Your task to perform on an android device: clear history in the chrome app Image 0: 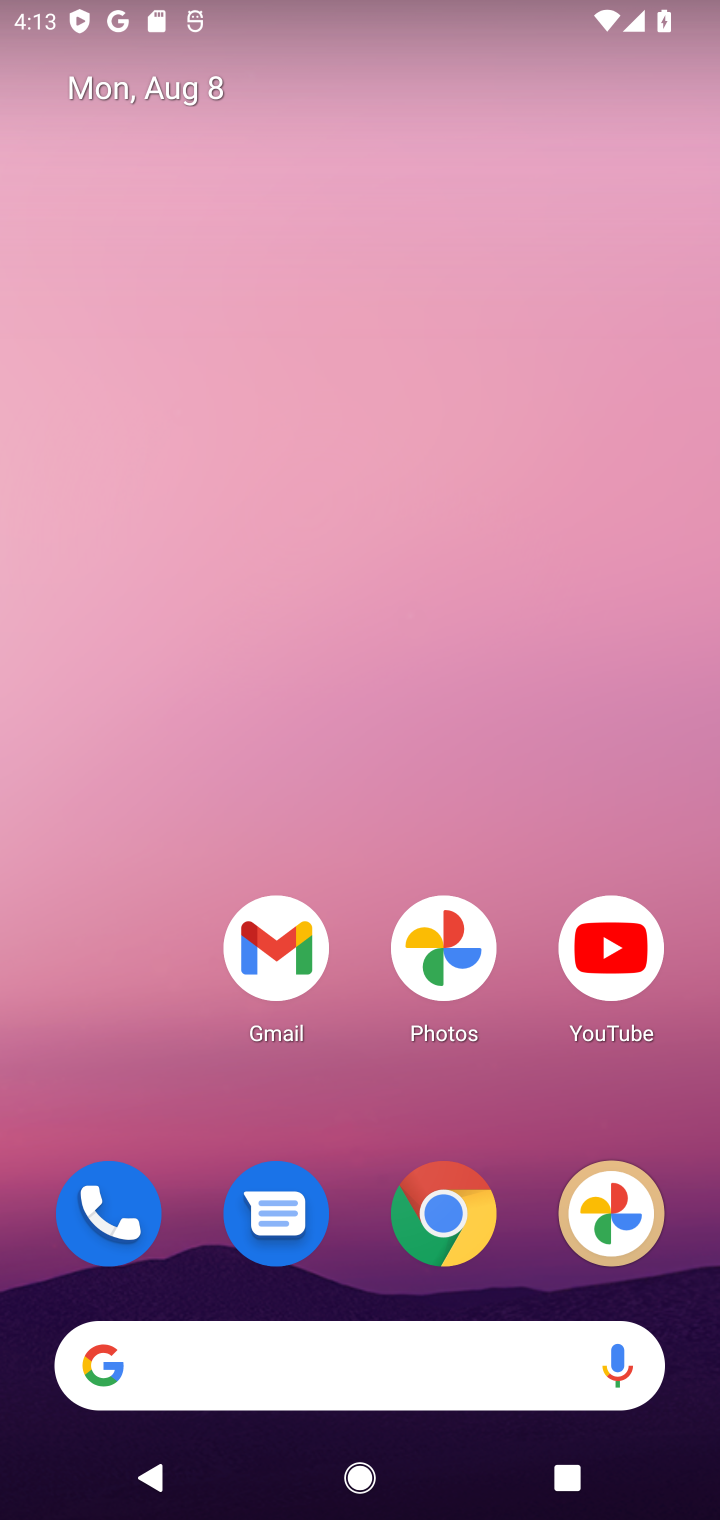
Step 0: click (447, 1193)
Your task to perform on an android device: clear history in the chrome app Image 1: 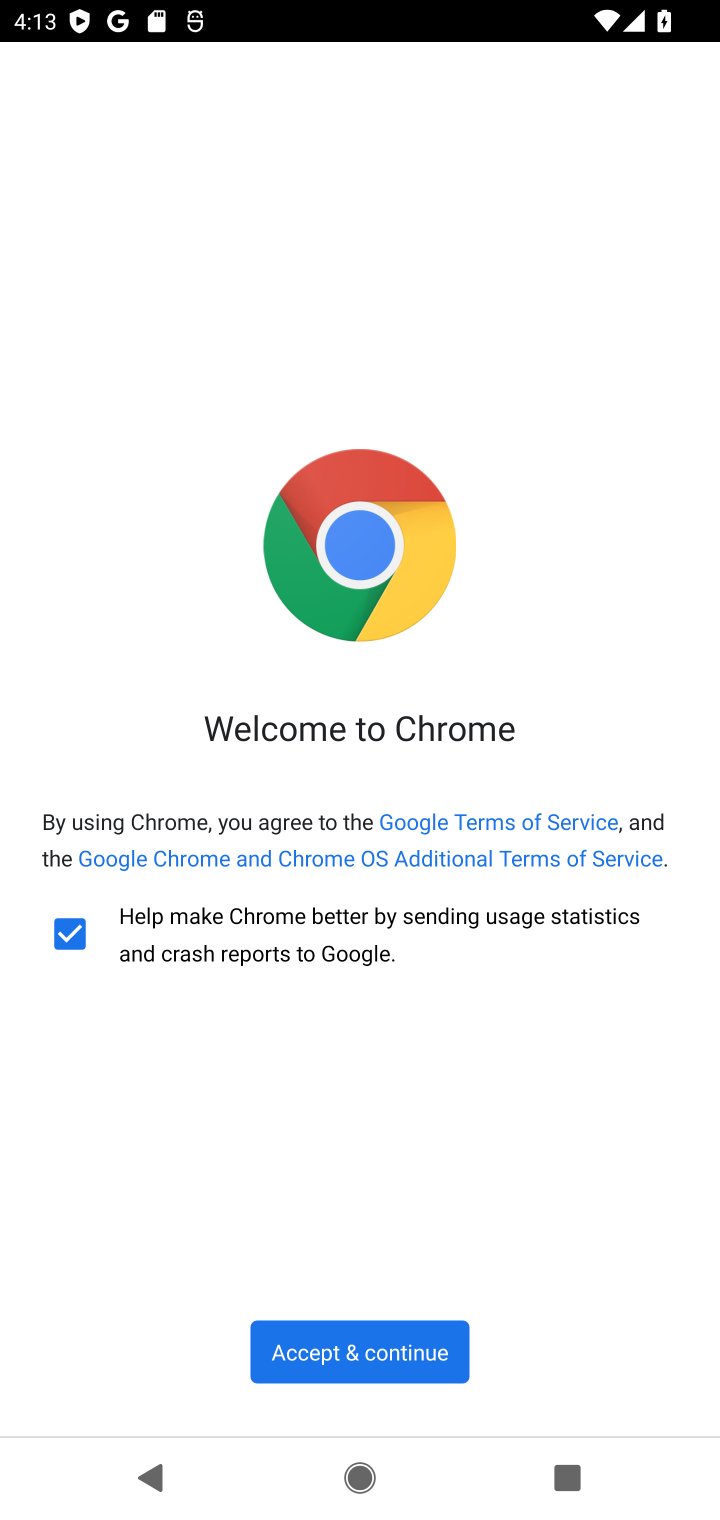
Step 1: click (411, 1350)
Your task to perform on an android device: clear history in the chrome app Image 2: 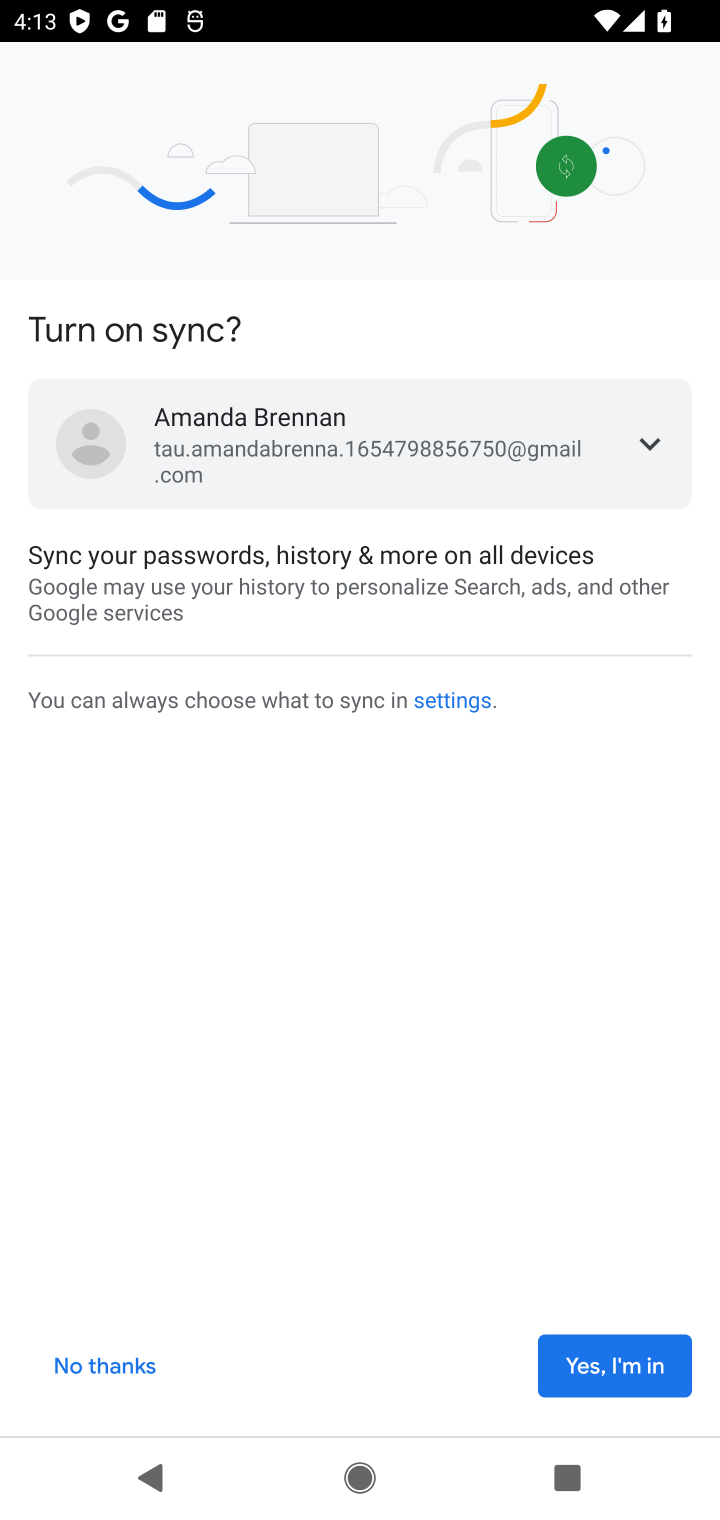
Step 2: click (601, 1353)
Your task to perform on an android device: clear history in the chrome app Image 3: 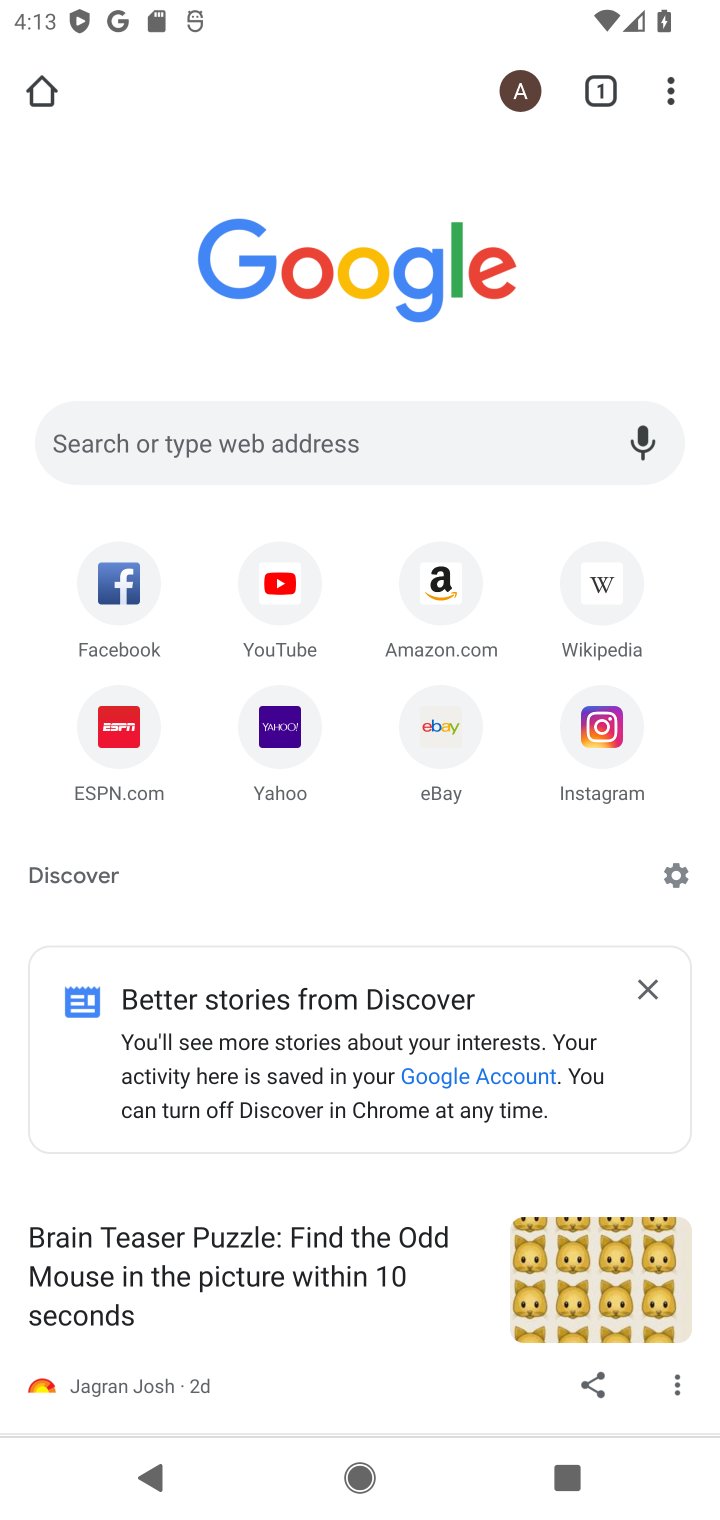
Step 3: click (661, 99)
Your task to perform on an android device: clear history in the chrome app Image 4: 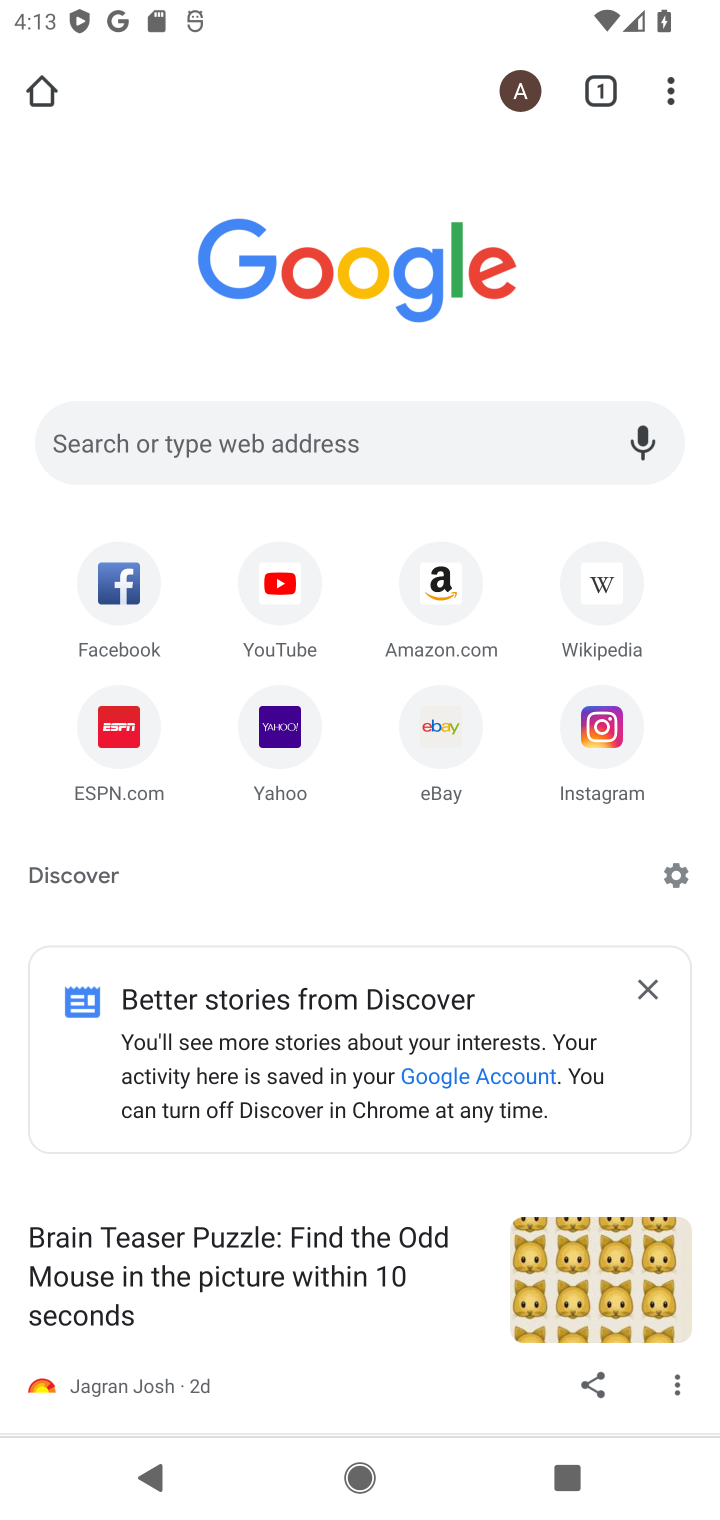
Step 4: click (704, 108)
Your task to perform on an android device: clear history in the chrome app Image 5: 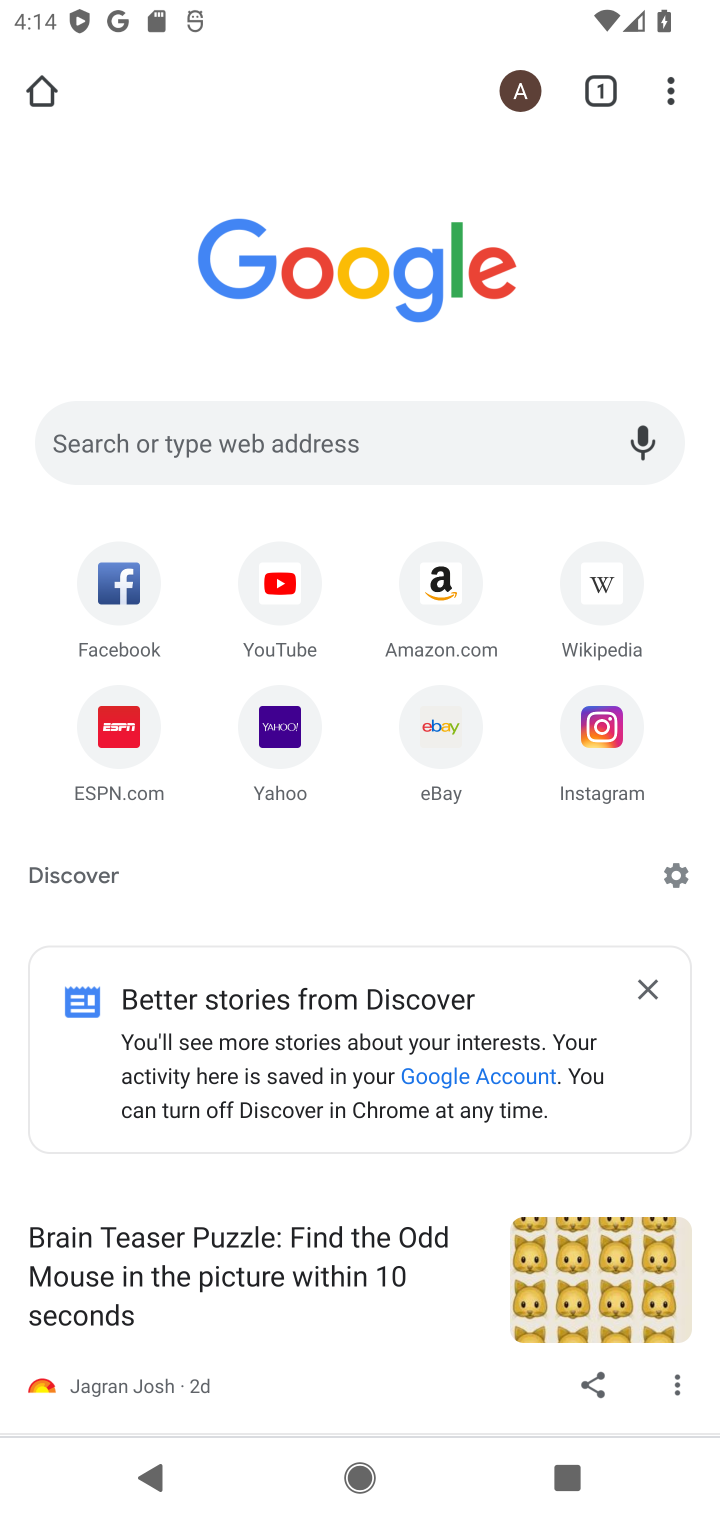
Step 5: click (674, 70)
Your task to perform on an android device: clear history in the chrome app Image 6: 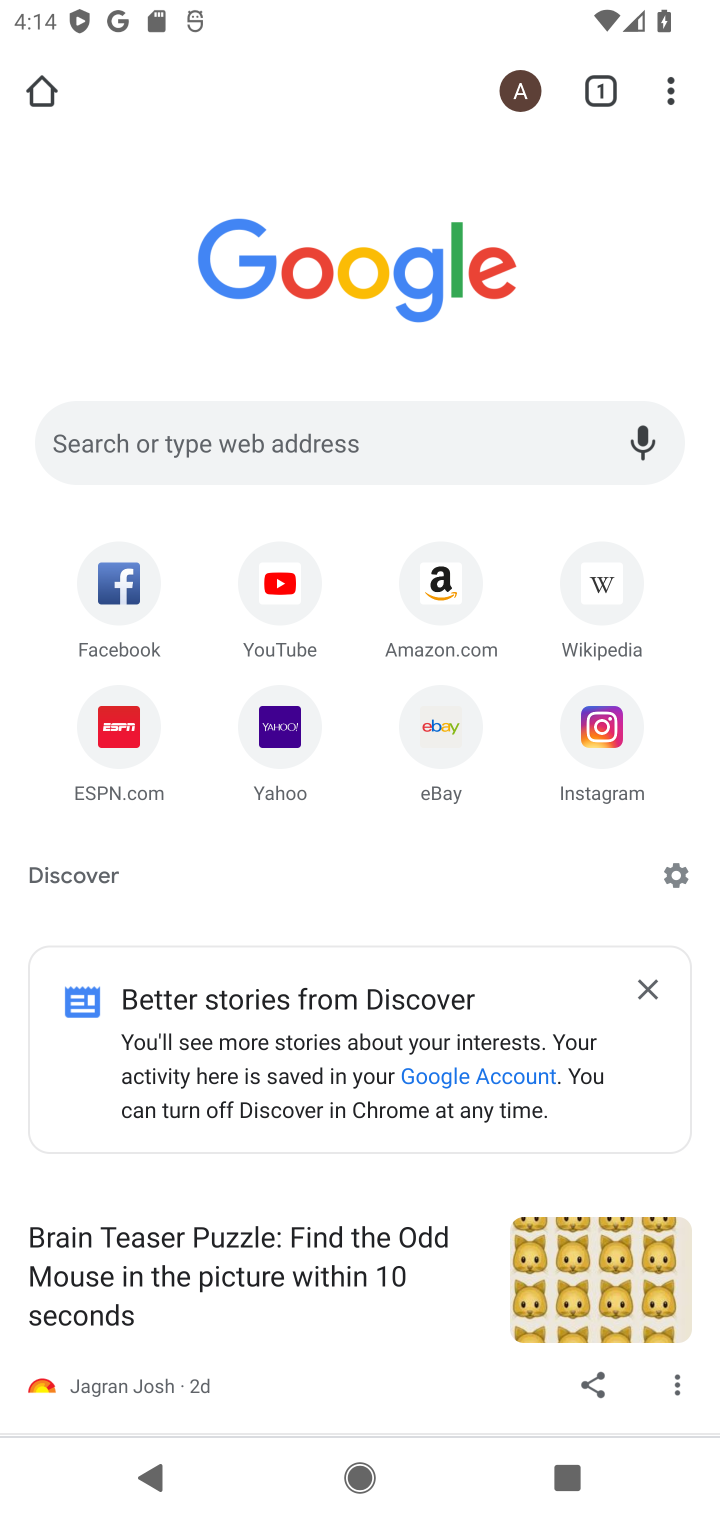
Step 6: click (708, 102)
Your task to perform on an android device: clear history in the chrome app Image 7: 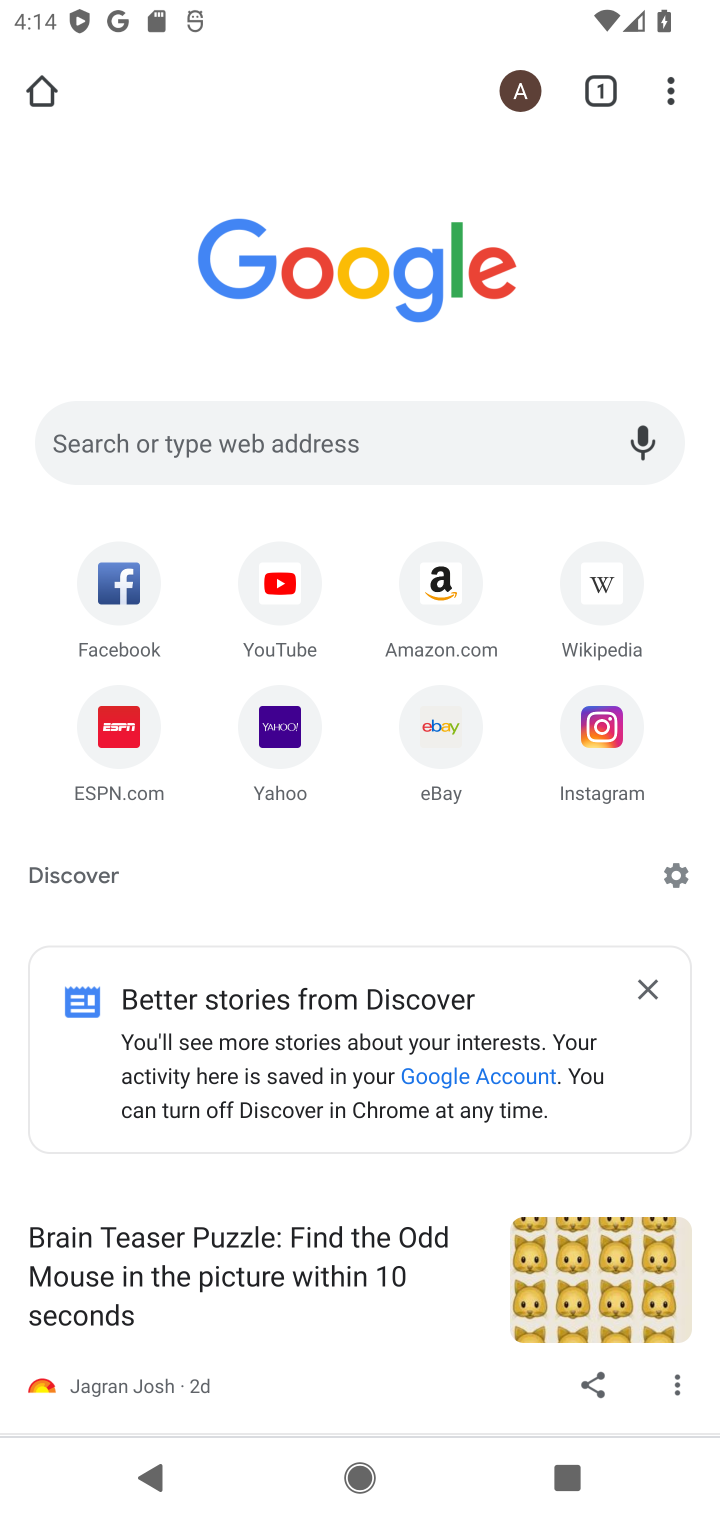
Step 7: click (715, 97)
Your task to perform on an android device: clear history in the chrome app Image 8: 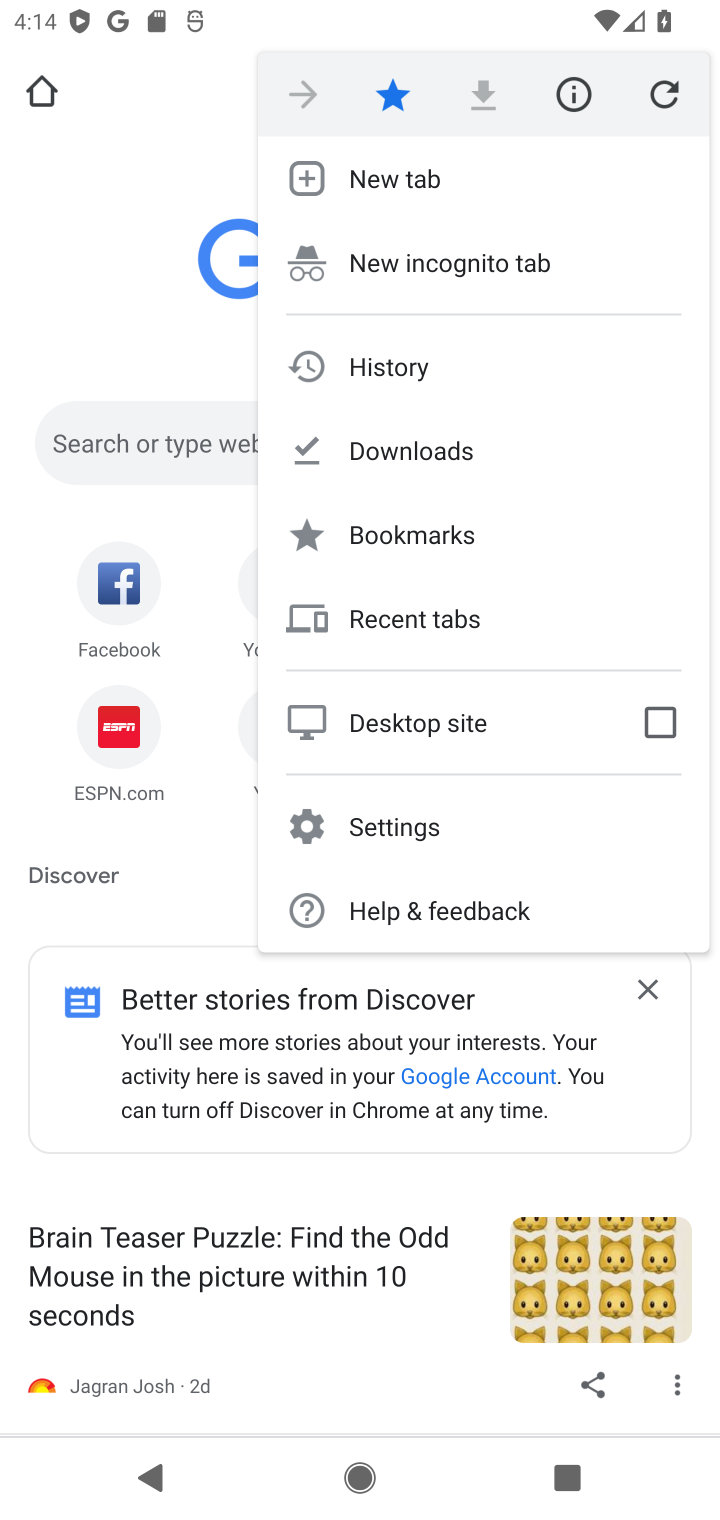
Step 8: click (391, 385)
Your task to perform on an android device: clear history in the chrome app Image 9: 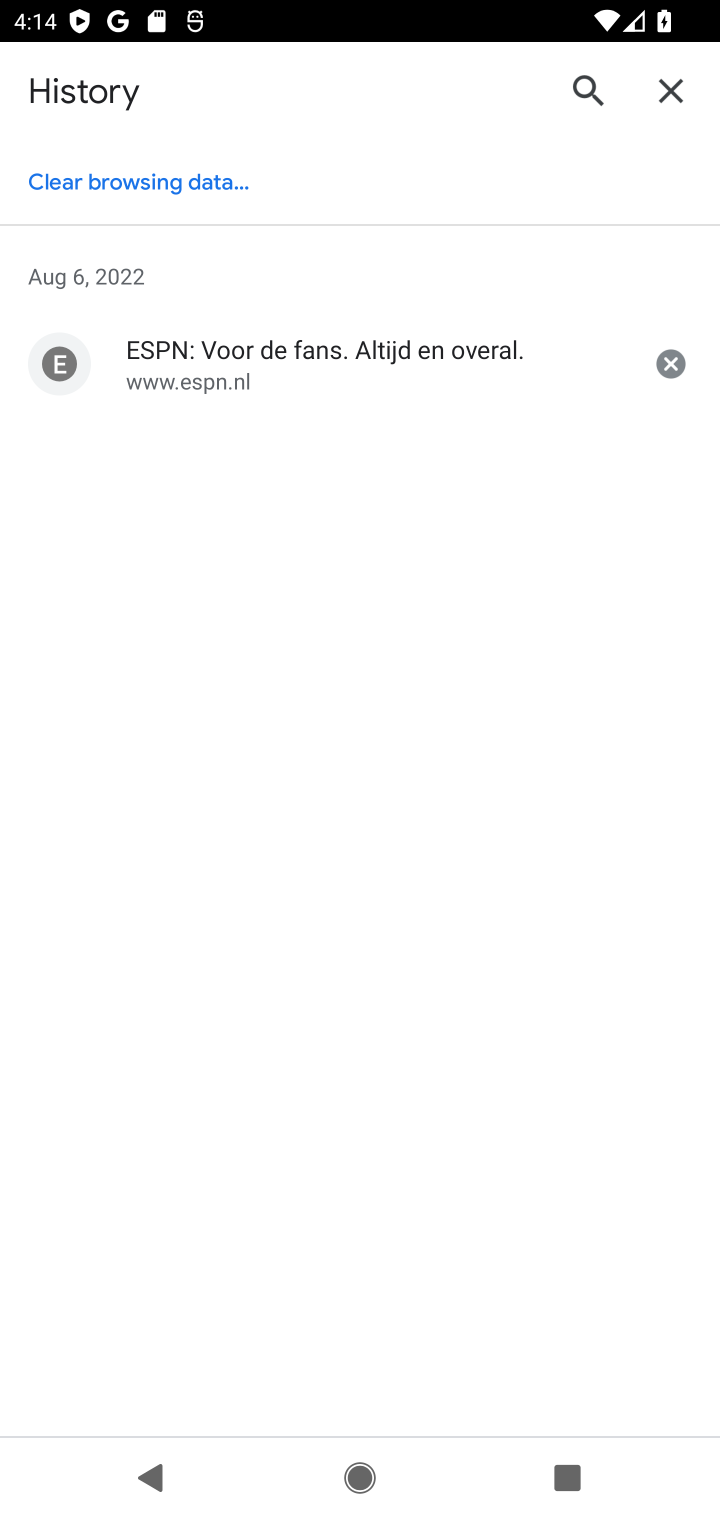
Step 9: click (186, 186)
Your task to perform on an android device: clear history in the chrome app Image 10: 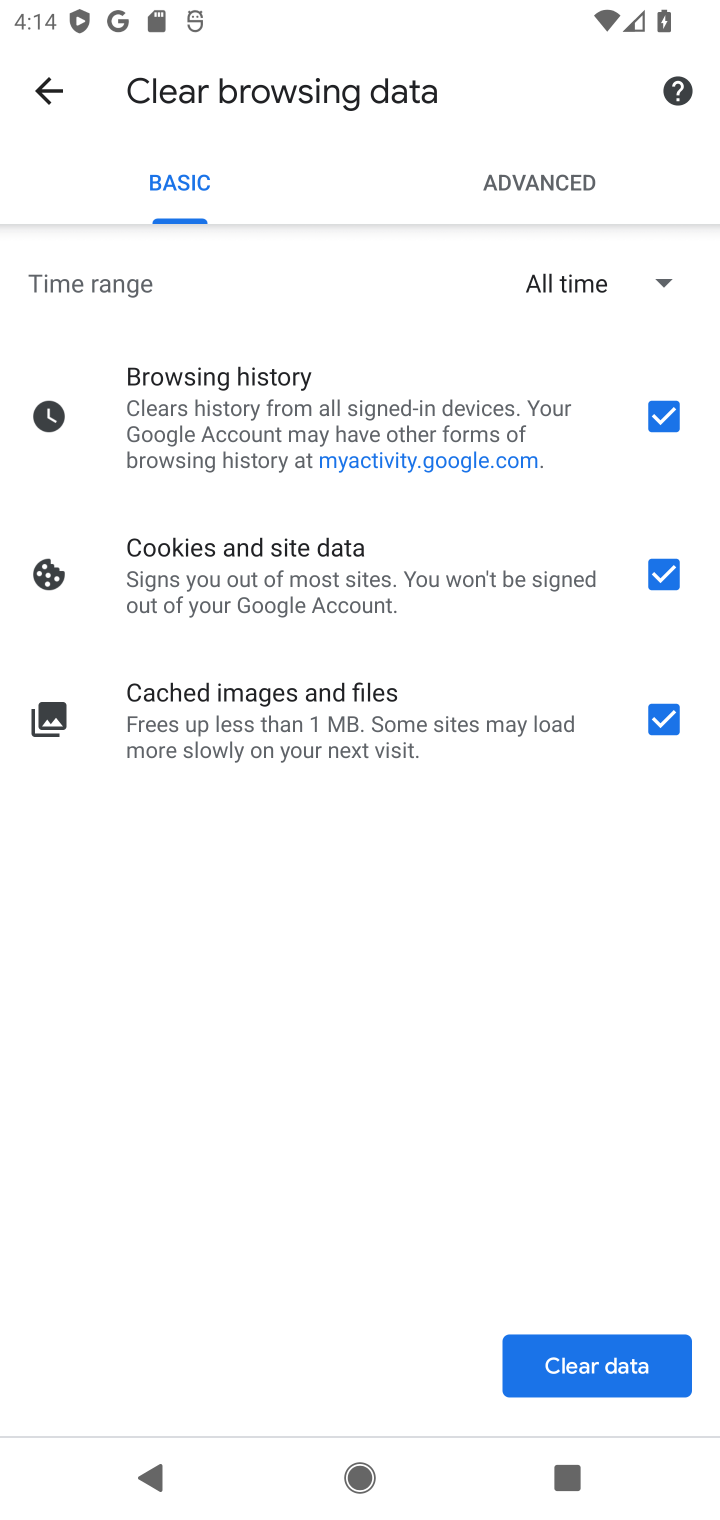
Step 10: click (630, 1359)
Your task to perform on an android device: clear history in the chrome app Image 11: 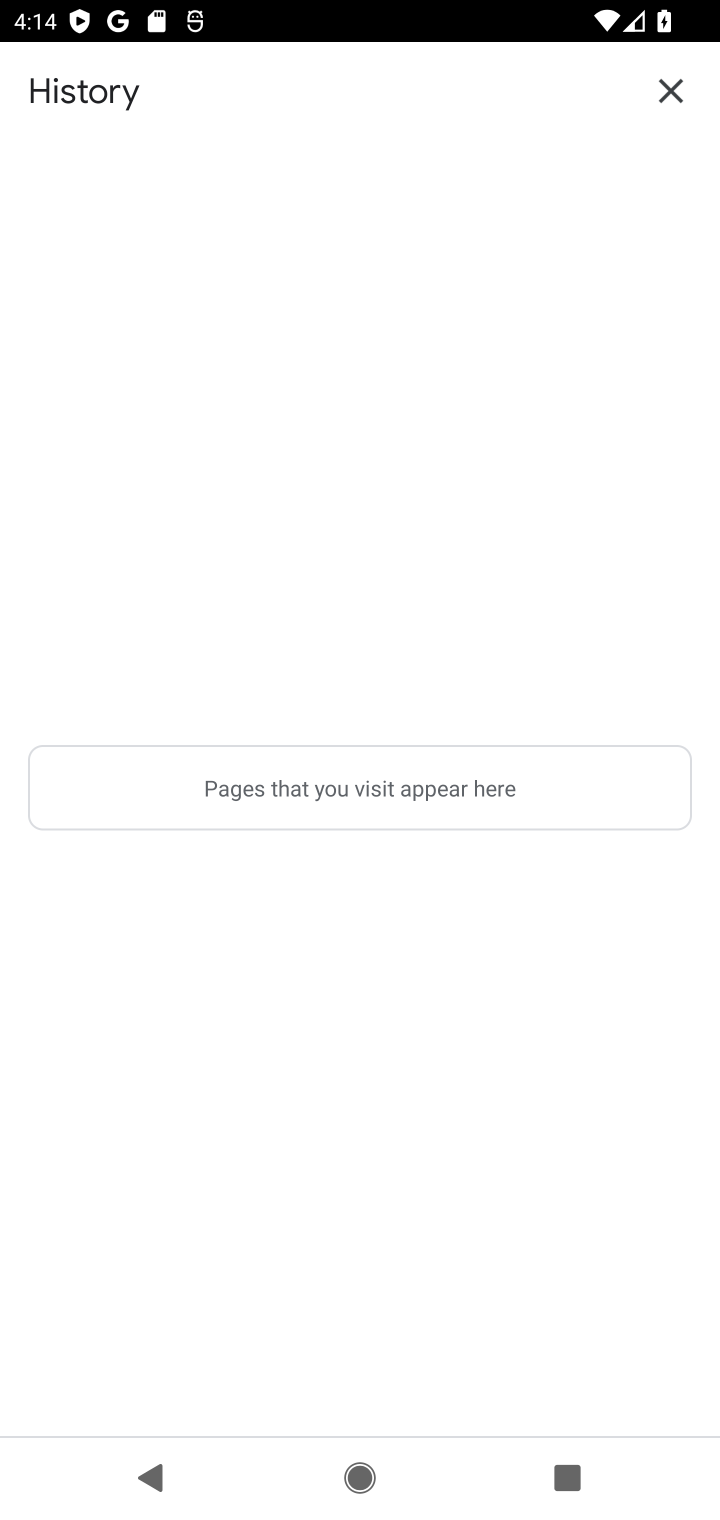
Step 11: task complete